Your task to perform on an android device: Do I have any events this weekend? Image 0: 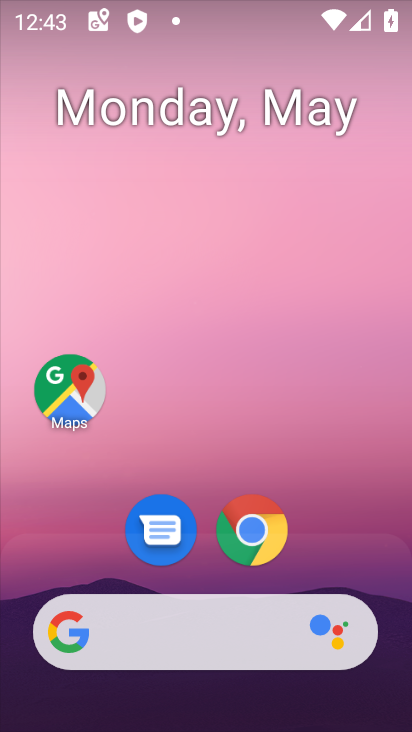
Step 0: drag from (203, 631) to (28, 5)
Your task to perform on an android device: Do I have any events this weekend? Image 1: 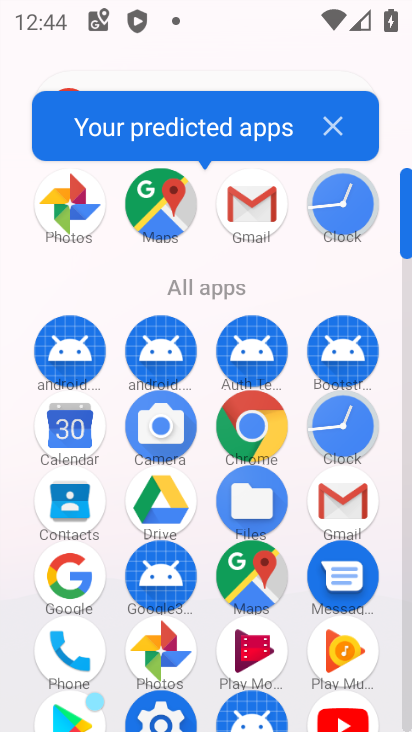
Step 1: click (80, 406)
Your task to perform on an android device: Do I have any events this weekend? Image 2: 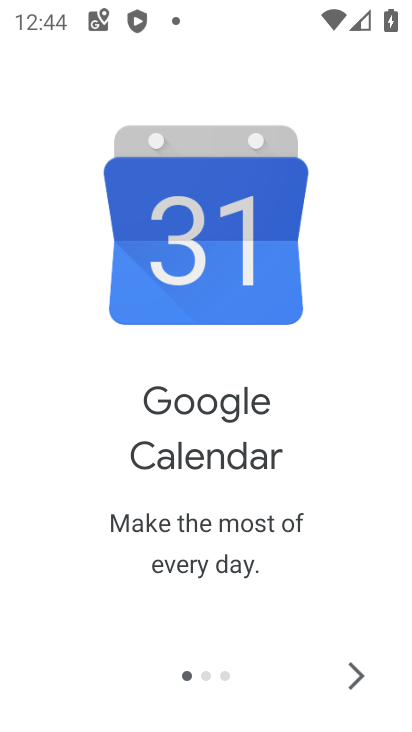
Step 2: click (354, 681)
Your task to perform on an android device: Do I have any events this weekend? Image 3: 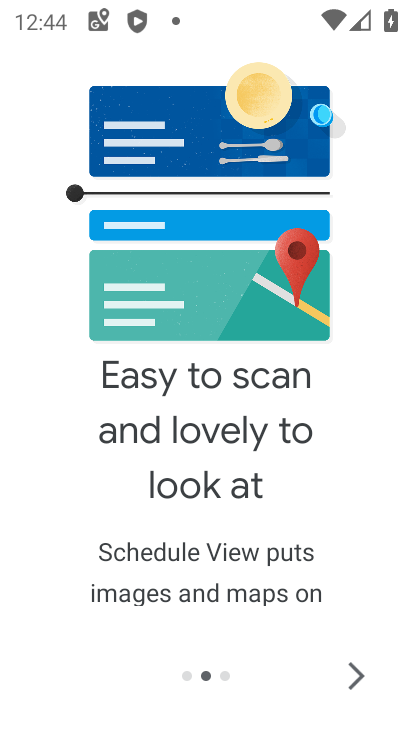
Step 3: click (354, 681)
Your task to perform on an android device: Do I have any events this weekend? Image 4: 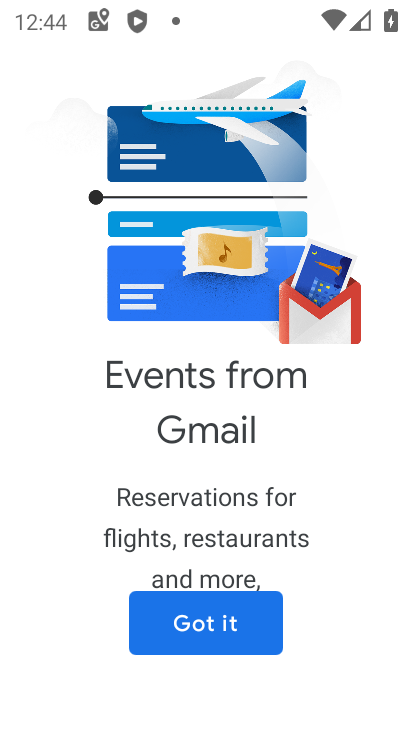
Step 4: click (354, 681)
Your task to perform on an android device: Do I have any events this weekend? Image 5: 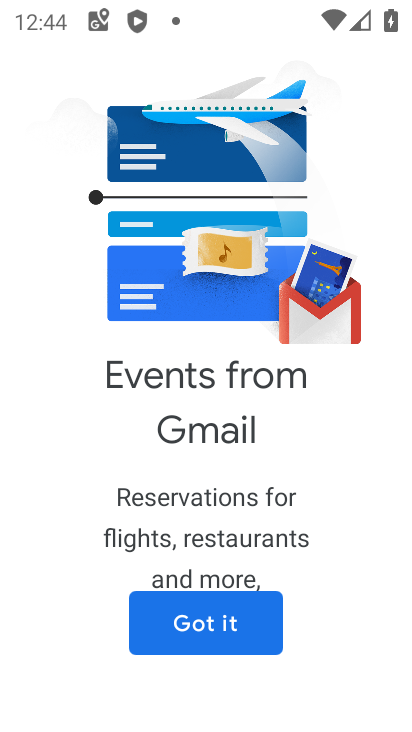
Step 5: click (246, 637)
Your task to perform on an android device: Do I have any events this weekend? Image 6: 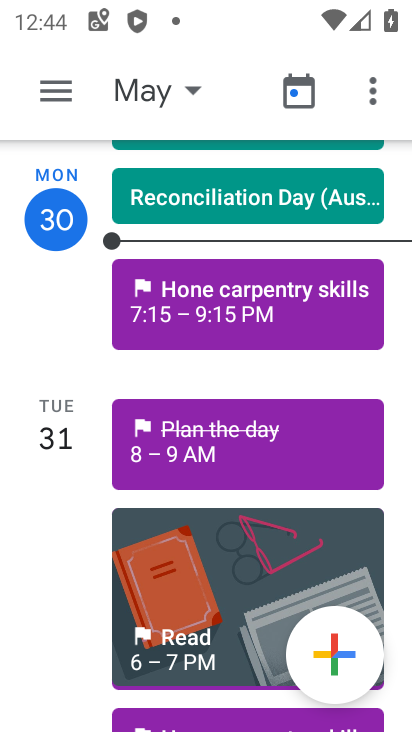
Step 6: click (51, 99)
Your task to perform on an android device: Do I have any events this weekend? Image 7: 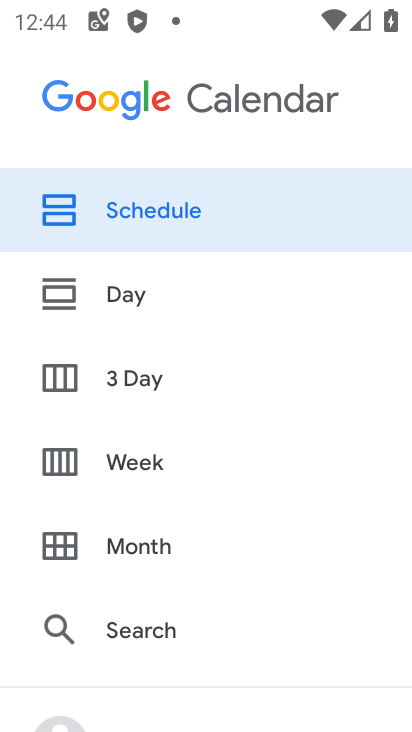
Step 7: drag from (226, 574) to (195, 30)
Your task to perform on an android device: Do I have any events this weekend? Image 8: 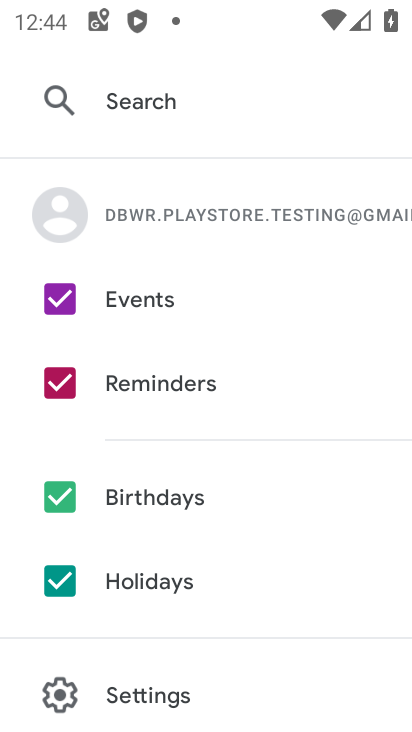
Step 8: drag from (158, 235) to (188, 723)
Your task to perform on an android device: Do I have any events this weekend? Image 9: 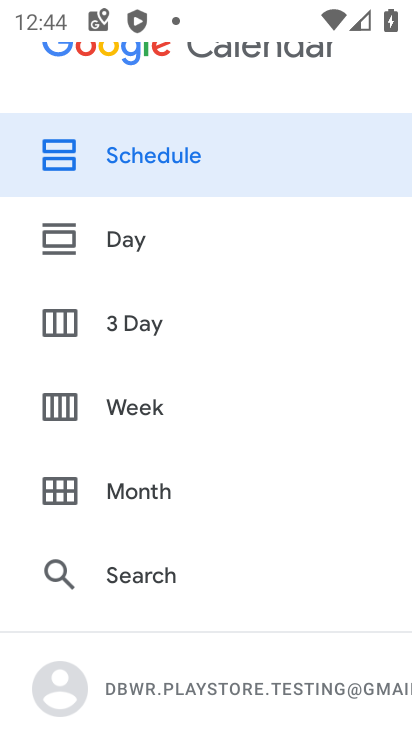
Step 9: click (139, 410)
Your task to perform on an android device: Do I have any events this weekend? Image 10: 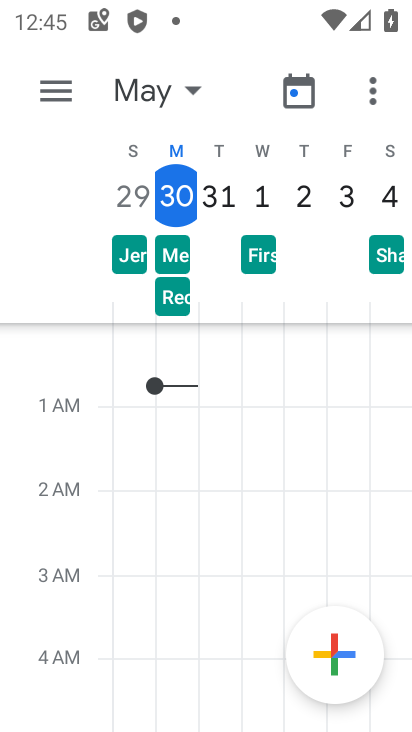
Step 10: task complete